Your task to perform on an android device: toggle improve location accuracy Image 0: 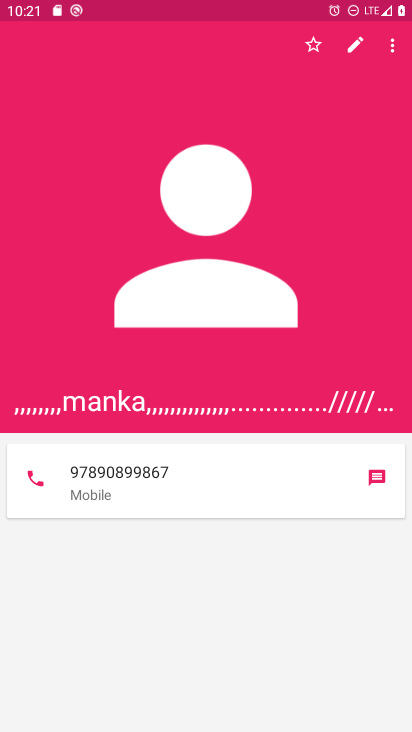
Step 0: press home button
Your task to perform on an android device: toggle improve location accuracy Image 1: 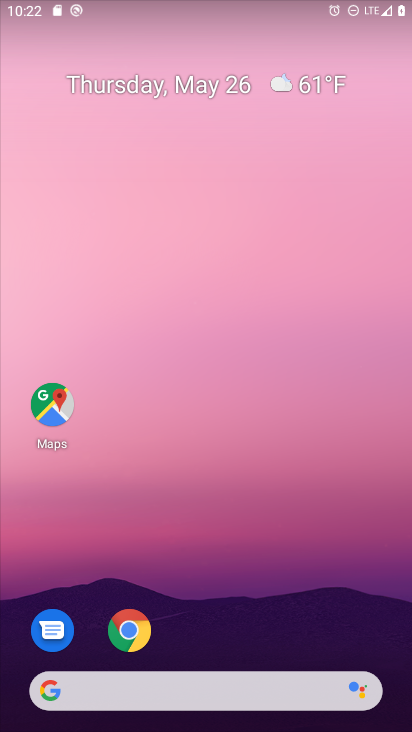
Step 1: drag from (227, 659) to (192, 40)
Your task to perform on an android device: toggle improve location accuracy Image 2: 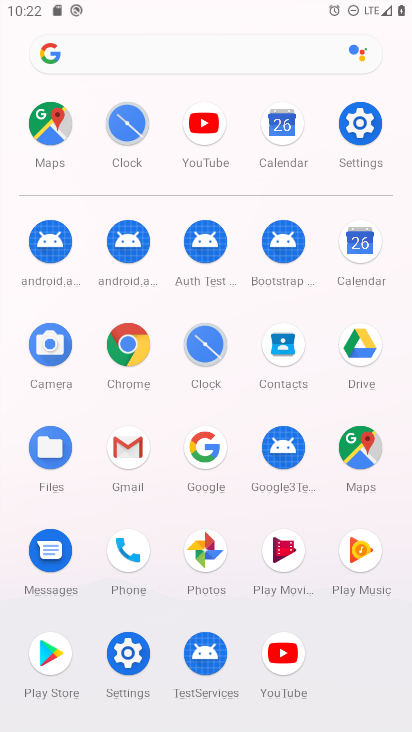
Step 2: click (148, 643)
Your task to perform on an android device: toggle improve location accuracy Image 3: 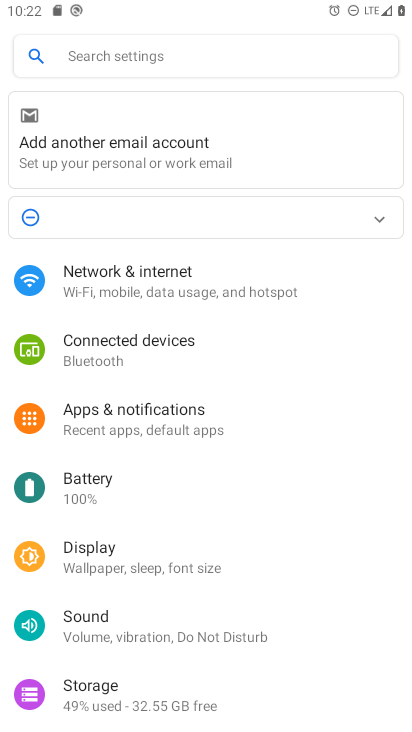
Step 3: drag from (148, 643) to (71, 222)
Your task to perform on an android device: toggle improve location accuracy Image 4: 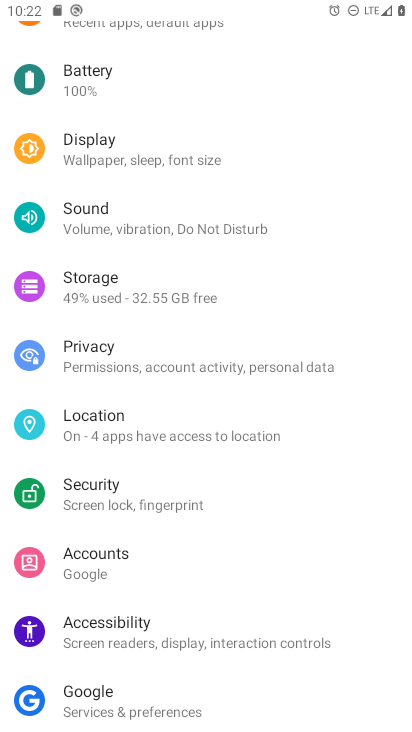
Step 4: click (90, 430)
Your task to perform on an android device: toggle improve location accuracy Image 5: 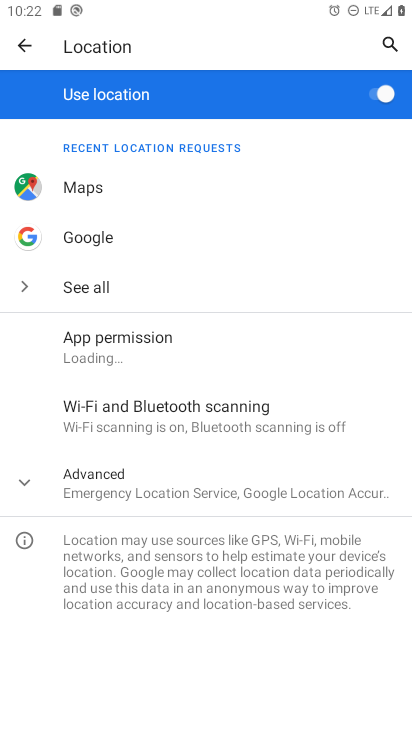
Step 5: click (133, 490)
Your task to perform on an android device: toggle improve location accuracy Image 6: 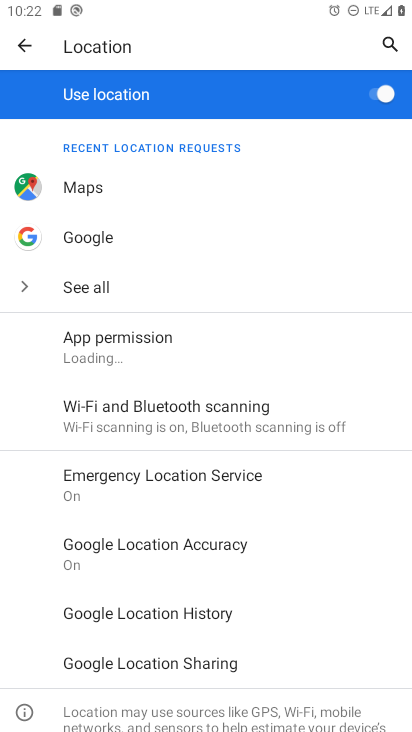
Step 6: click (160, 547)
Your task to perform on an android device: toggle improve location accuracy Image 7: 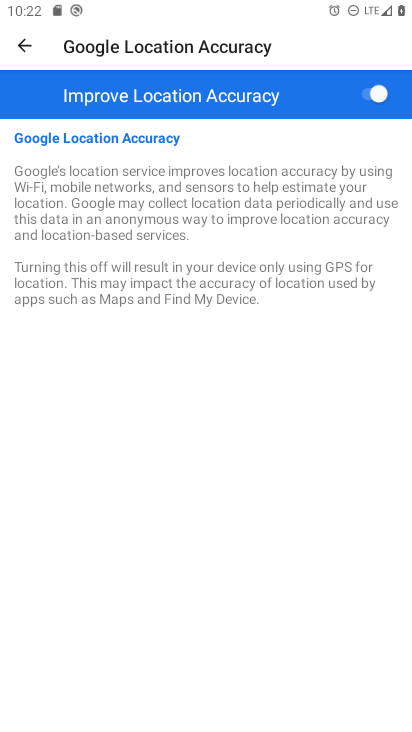
Step 7: click (367, 95)
Your task to perform on an android device: toggle improve location accuracy Image 8: 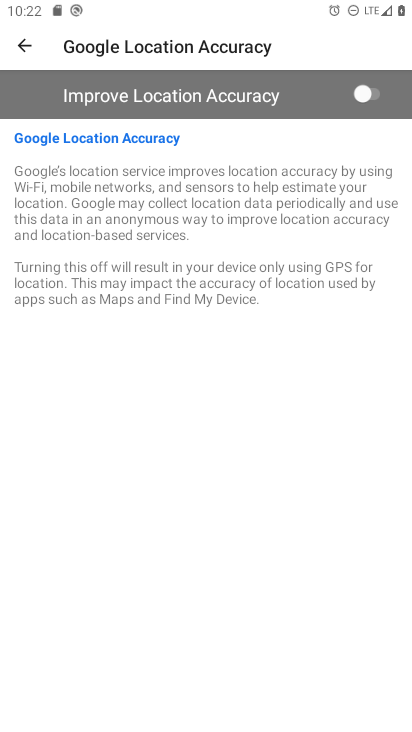
Step 8: task complete